Your task to perform on an android device: snooze an email in the gmail app Image 0: 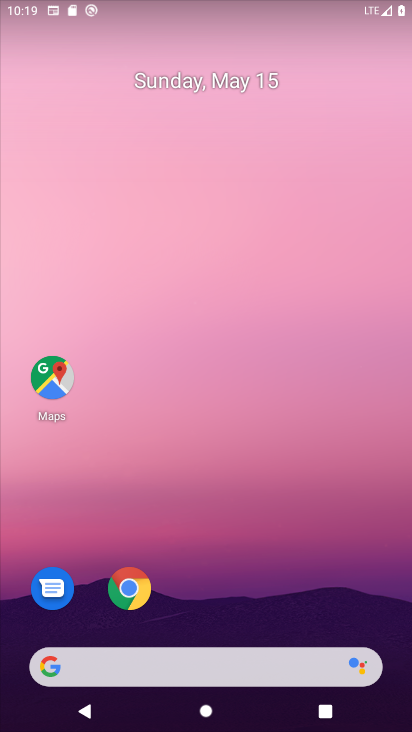
Step 0: drag from (271, 622) to (180, 236)
Your task to perform on an android device: snooze an email in the gmail app Image 1: 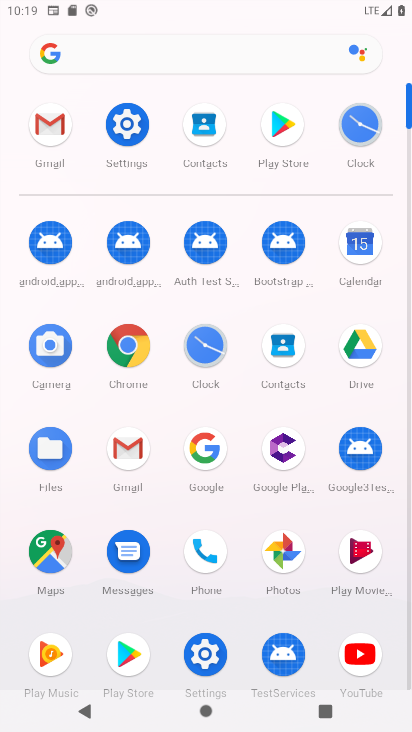
Step 1: click (41, 121)
Your task to perform on an android device: snooze an email in the gmail app Image 2: 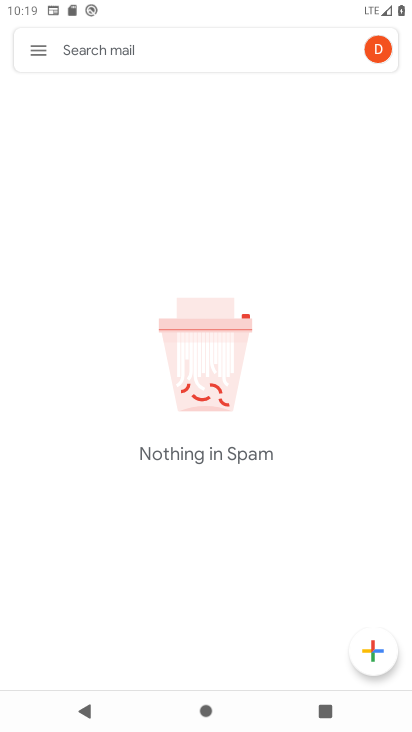
Step 2: click (36, 45)
Your task to perform on an android device: snooze an email in the gmail app Image 3: 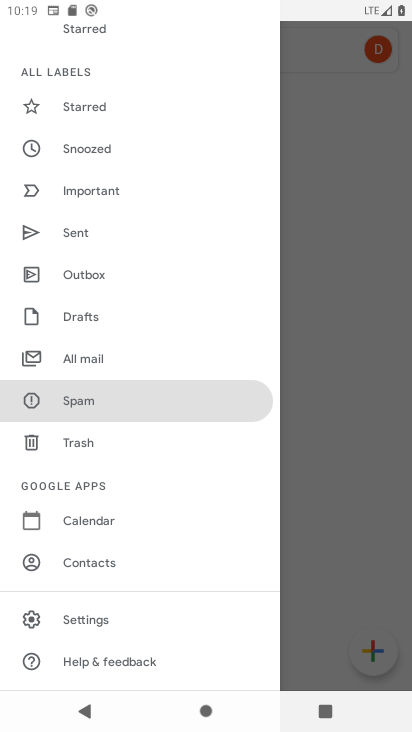
Step 3: click (91, 358)
Your task to perform on an android device: snooze an email in the gmail app Image 4: 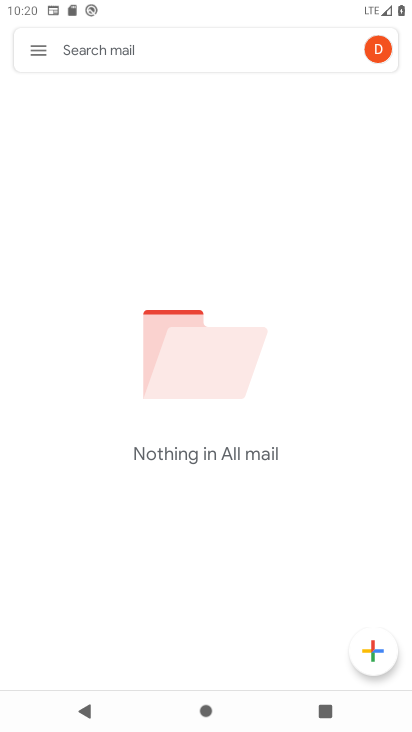
Step 4: task complete